Your task to perform on an android device: snooze an email in the gmail app Image 0: 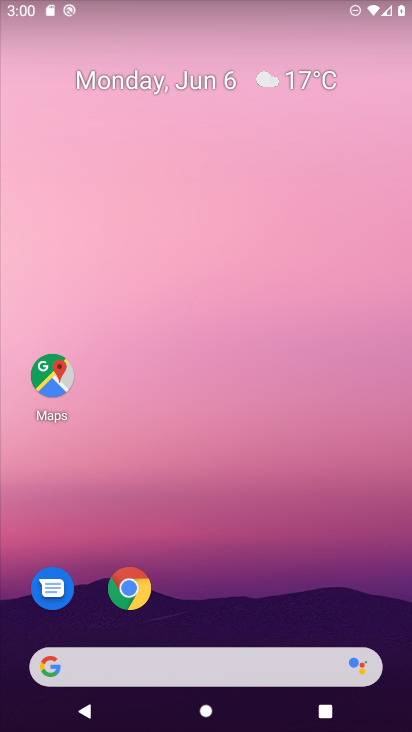
Step 0: drag from (159, 675) to (334, 47)
Your task to perform on an android device: snooze an email in the gmail app Image 1: 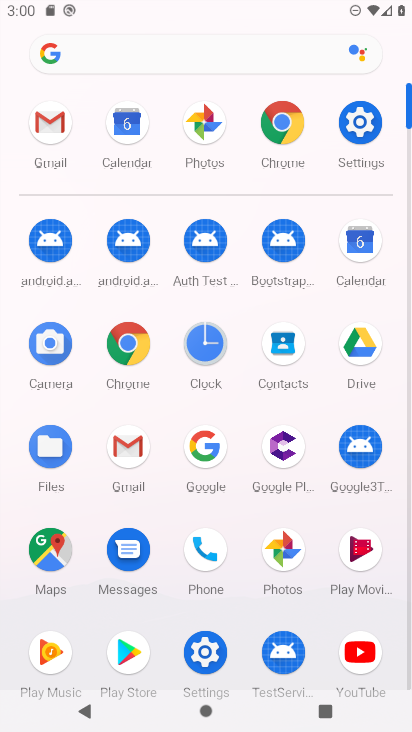
Step 1: click (113, 447)
Your task to perform on an android device: snooze an email in the gmail app Image 2: 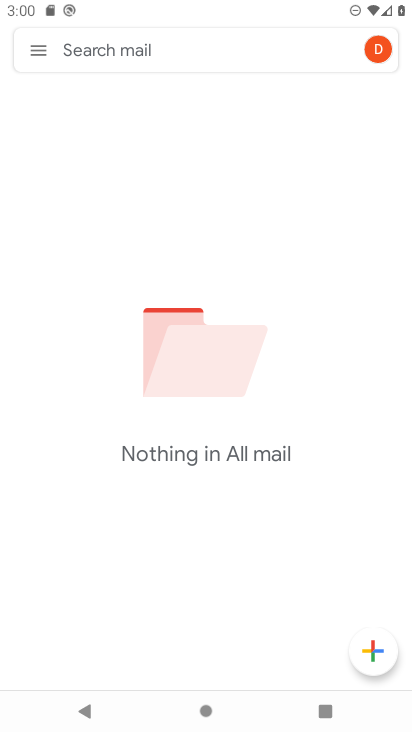
Step 2: task complete